Your task to perform on an android device: delete the emails in spam in the gmail app Image 0: 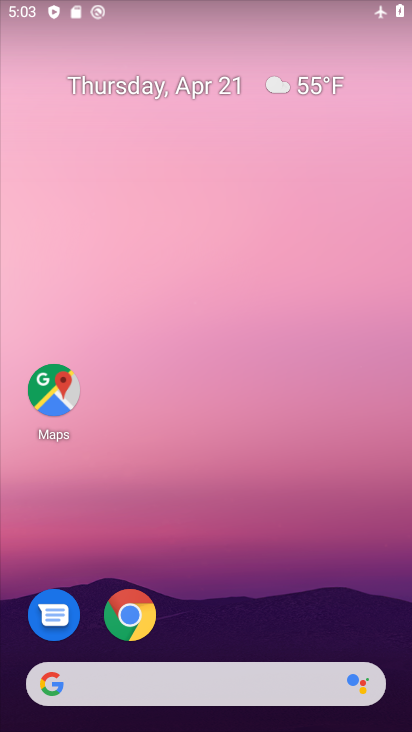
Step 0: drag from (344, 577) to (169, 16)
Your task to perform on an android device: delete the emails in spam in the gmail app Image 1: 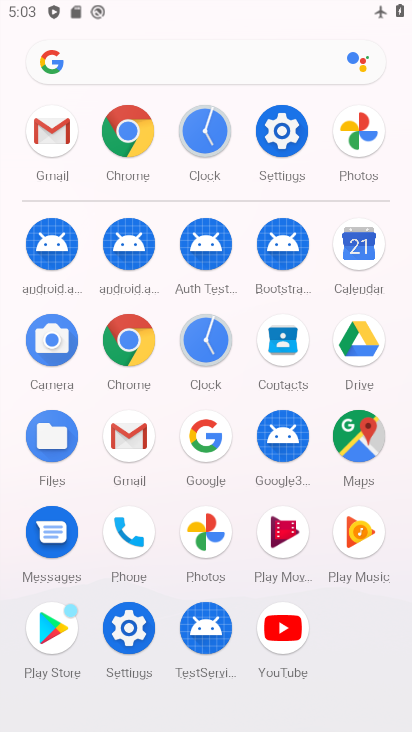
Step 1: drag from (1, 559) to (3, 346)
Your task to perform on an android device: delete the emails in spam in the gmail app Image 2: 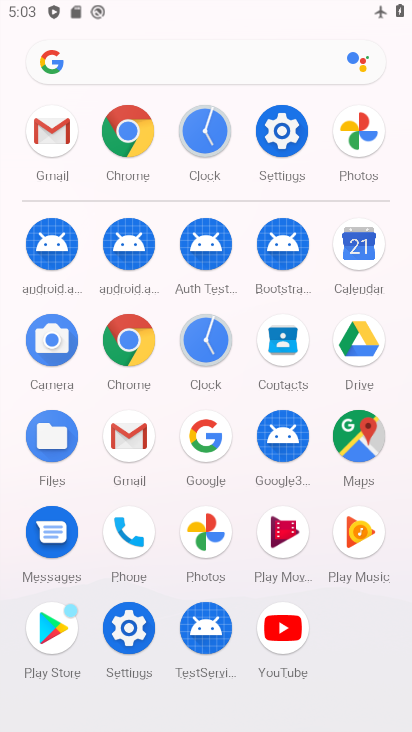
Step 2: click (124, 433)
Your task to perform on an android device: delete the emails in spam in the gmail app Image 3: 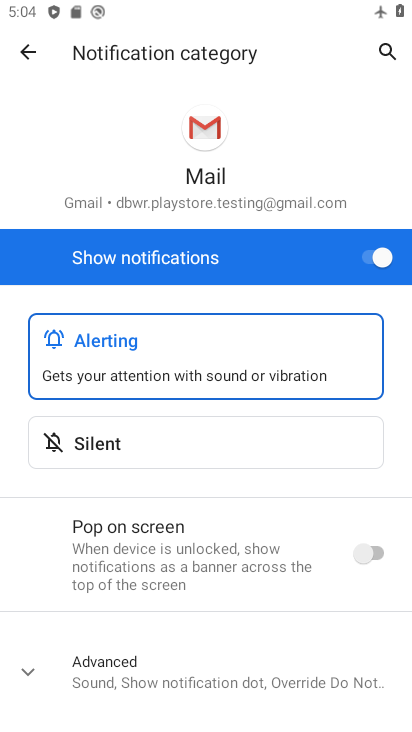
Step 3: click (26, 43)
Your task to perform on an android device: delete the emails in spam in the gmail app Image 4: 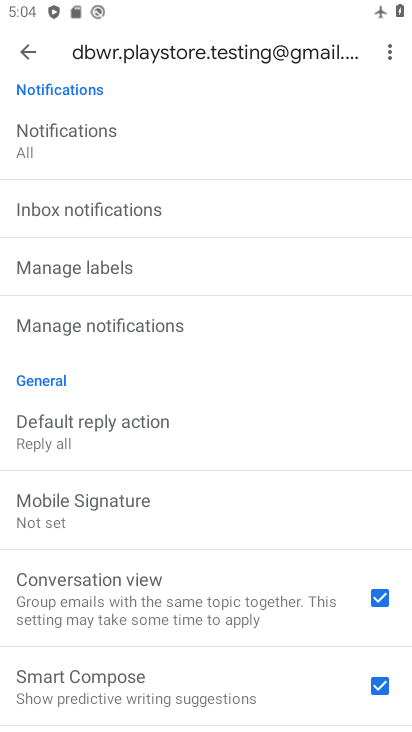
Step 4: drag from (227, 532) to (229, 216)
Your task to perform on an android device: delete the emails in spam in the gmail app Image 5: 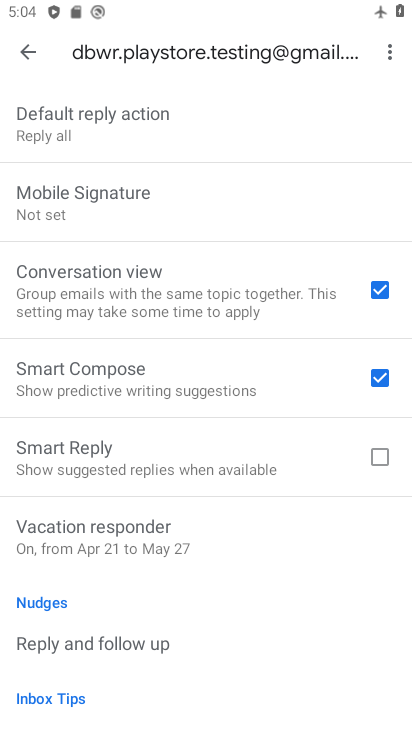
Step 5: click (22, 48)
Your task to perform on an android device: delete the emails in spam in the gmail app Image 6: 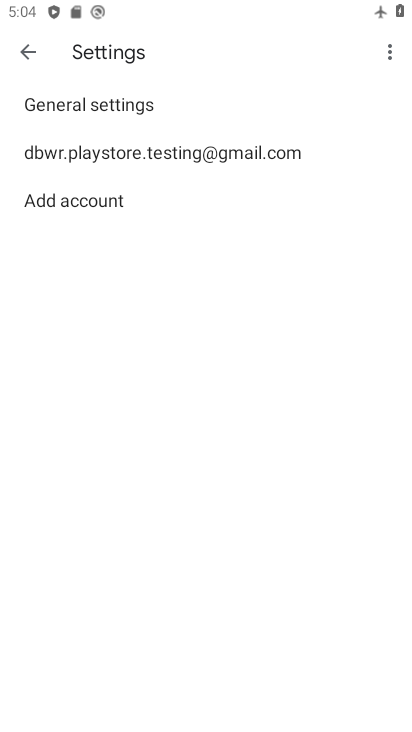
Step 6: click (22, 48)
Your task to perform on an android device: delete the emails in spam in the gmail app Image 7: 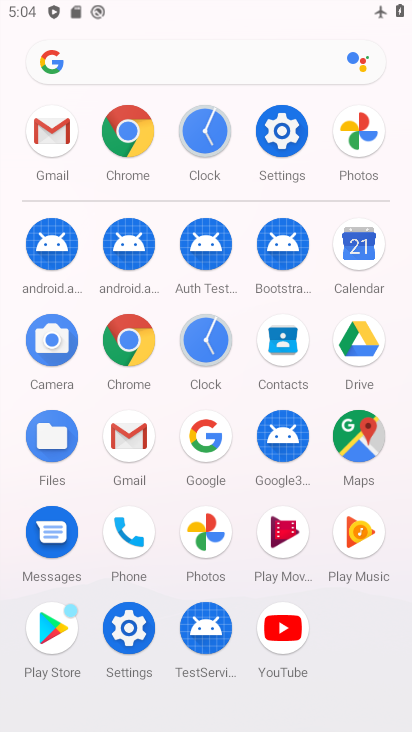
Step 7: click (126, 433)
Your task to perform on an android device: delete the emails in spam in the gmail app Image 8: 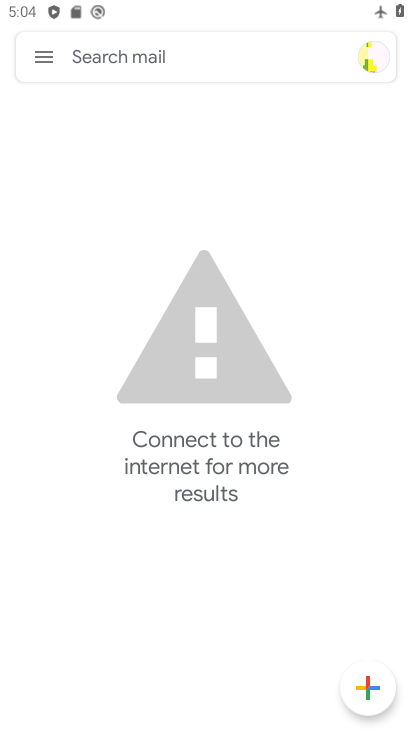
Step 8: click (43, 46)
Your task to perform on an android device: delete the emails in spam in the gmail app Image 9: 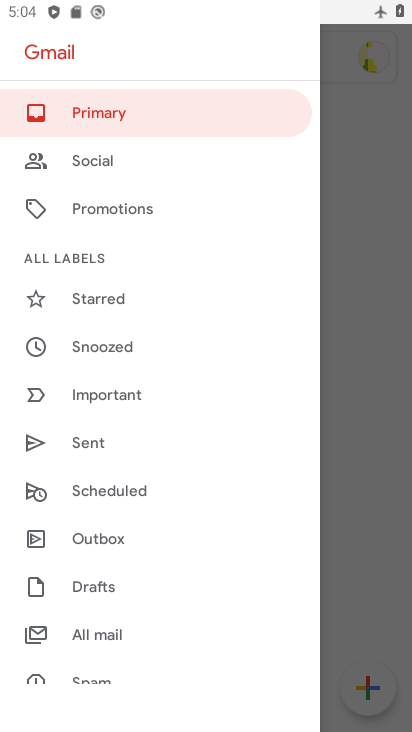
Step 9: drag from (123, 596) to (144, 290)
Your task to perform on an android device: delete the emails in spam in the gmail app Image 10: 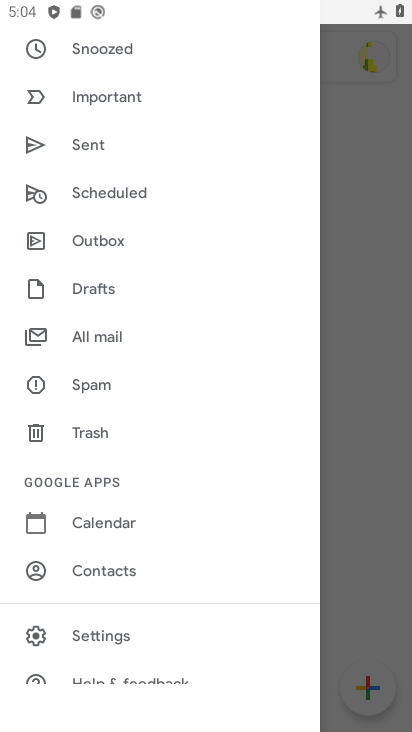
Step 10: click (107, 386)
Your task to perform on an android device: delete the emails in spam in the gmail app Image 11: 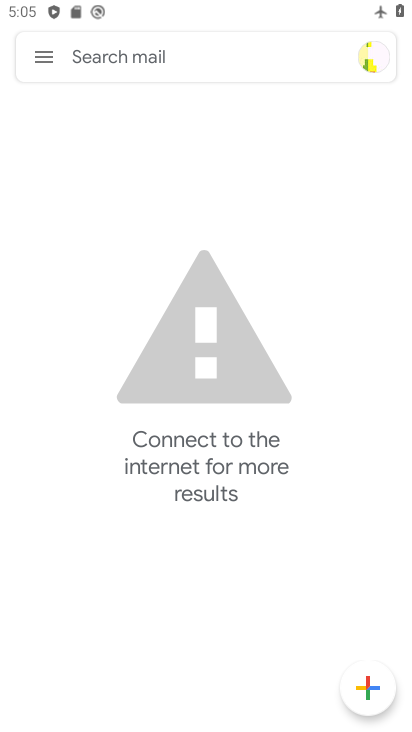
Step 11: task complete